Your task to perform on an android device: What's the weather going to be this weekend? Image 0: 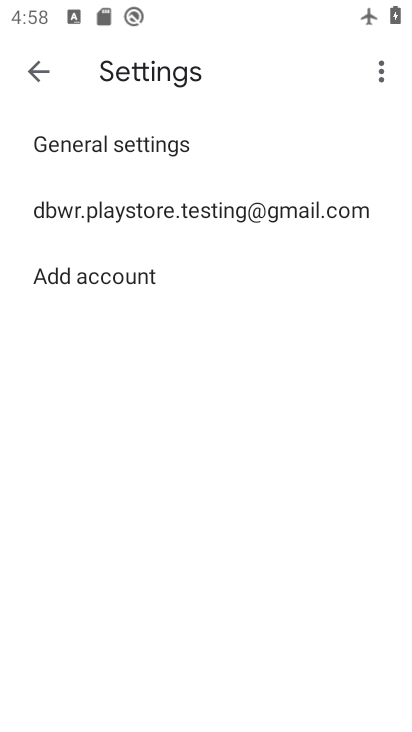
Step 0: press home button
Your task to perform on an android device: What's the weather going to be this weekend? Image 1: 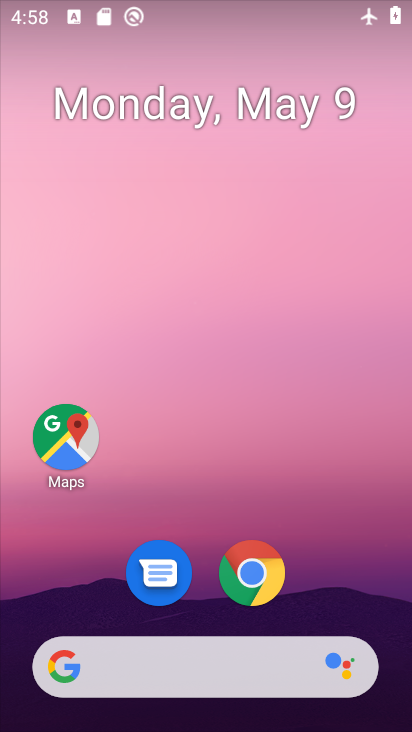
Step 1: drag from (0, 143) to (369, 169)
Your task to perform on an android device: What's the weather going to be this weekend? Image 2: 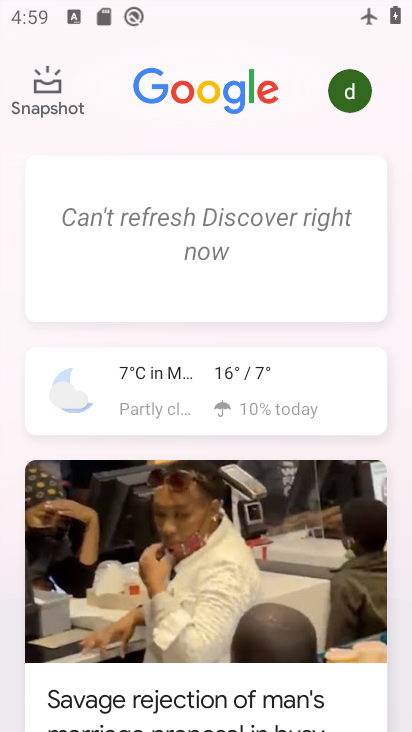
Step 2: click (241, 384)
Your task to perform on an android device: What's the weather going to be this weekend? Image 3: 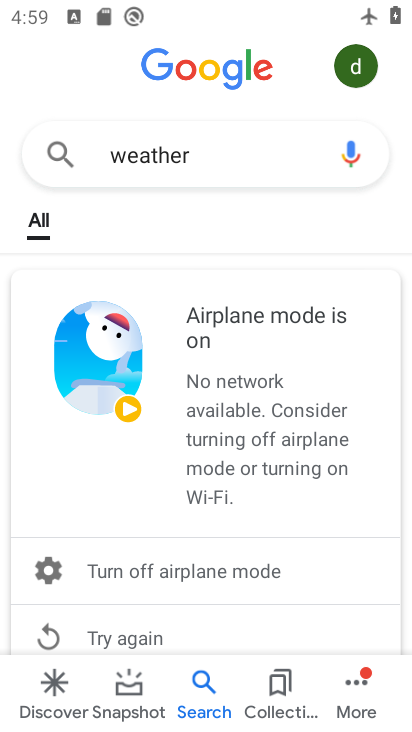
Step 3: task complete